Your task to perform on an android device: install app "Upside-Cash back on gas & food" Image 0: 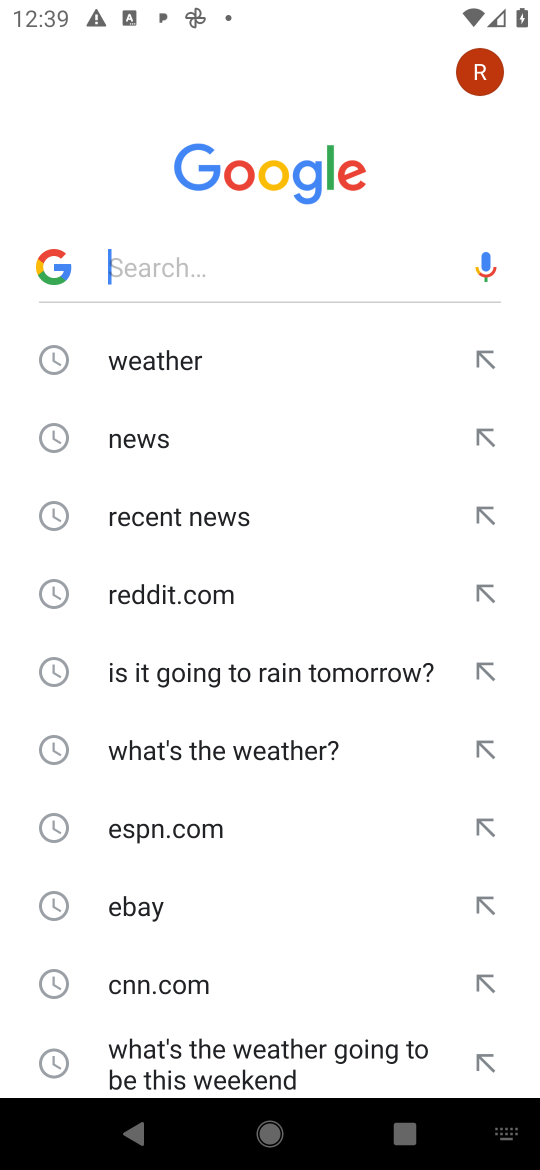
Step 0: press home button
Your task to perform on an android device: install app "Upside-Cash back on gas & food" Image 1: 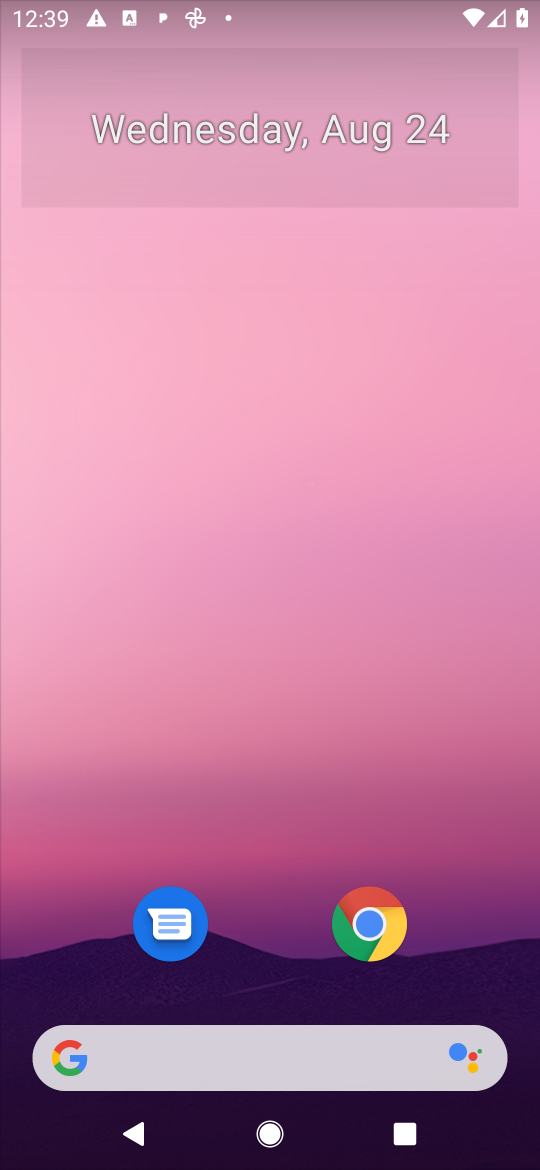
Step 1: drag from (476, 877) to (492, 197)
Your task to perform on an android device: install app "Upside-Cash back on gas & food" Image 2: 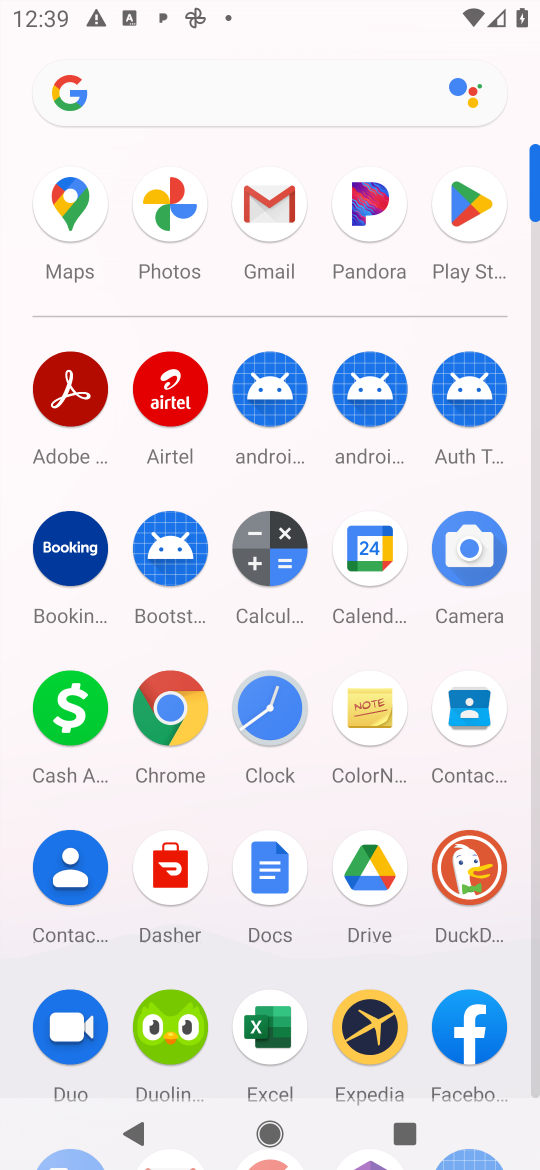
Step 2: click (474, 214)
Your task to perform on an android device: install app "Upside-Cash back on gas & food" Image 3: 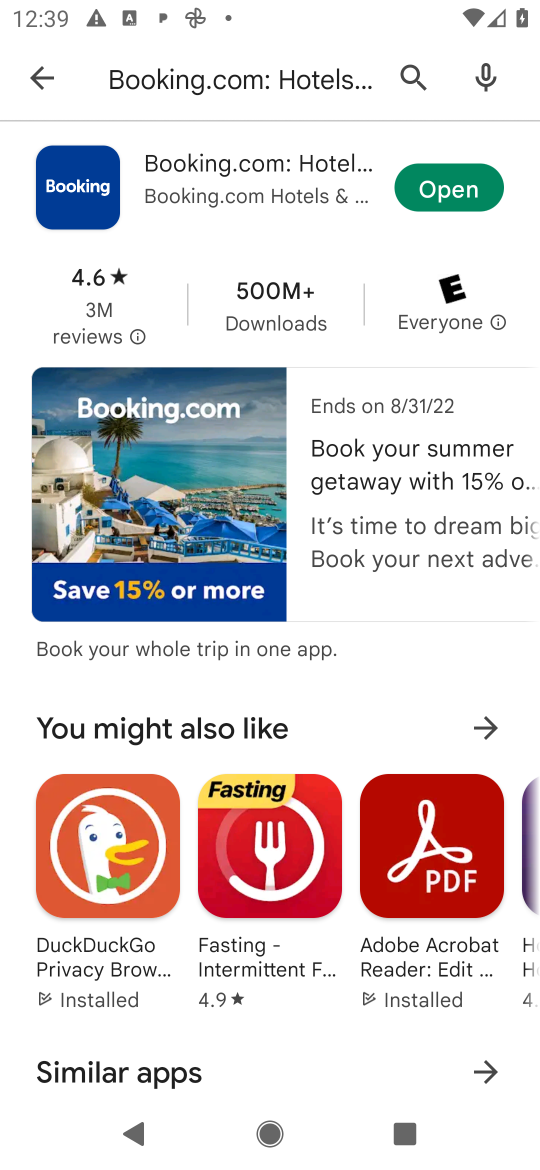
Step 3: press back button
Your task to perform on an android device: install app "Upside-Cash back on gas & food" Image 4: 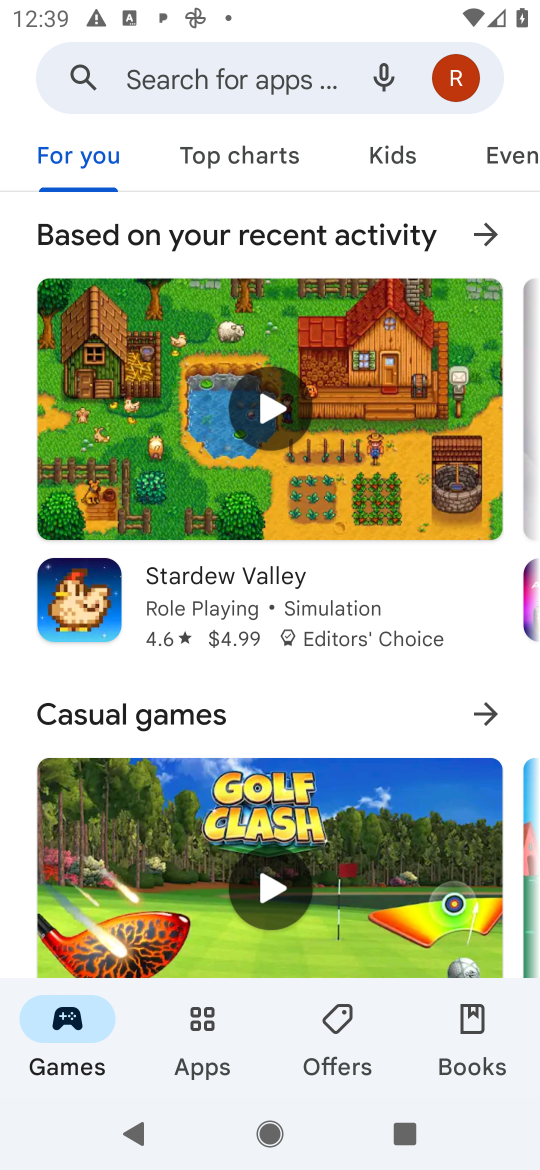
Step 4: click (260, 87)
Your task to perform on an android device: install app "Upside-Cash back on gas & food" Image 5: 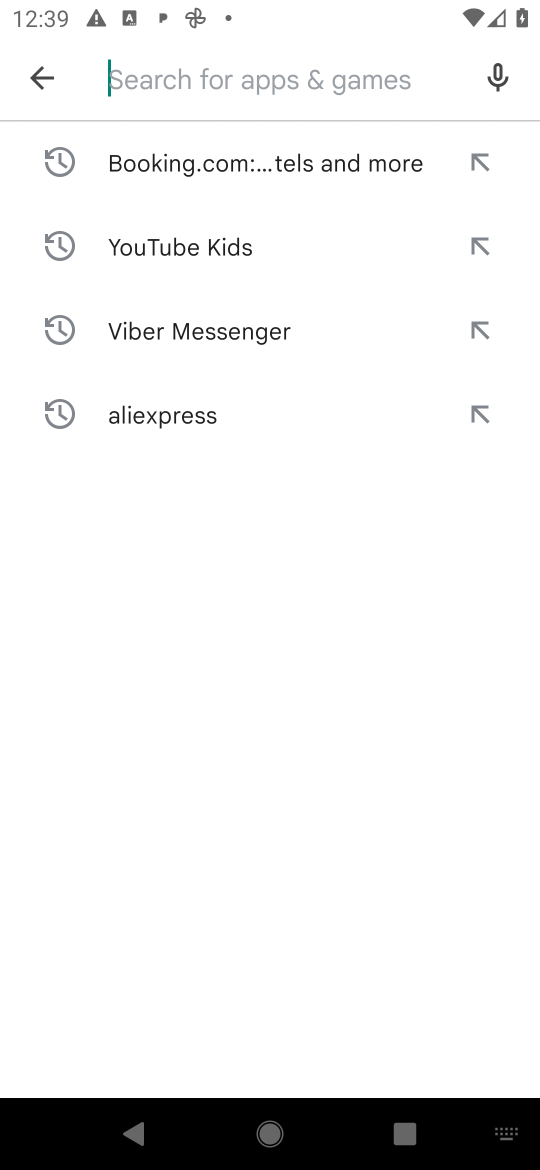
Step 5: type "Upside-Cash back on gas & food"
Your task to perform on an android device: install app "Upside-Cash back on gas & food" Image 6: 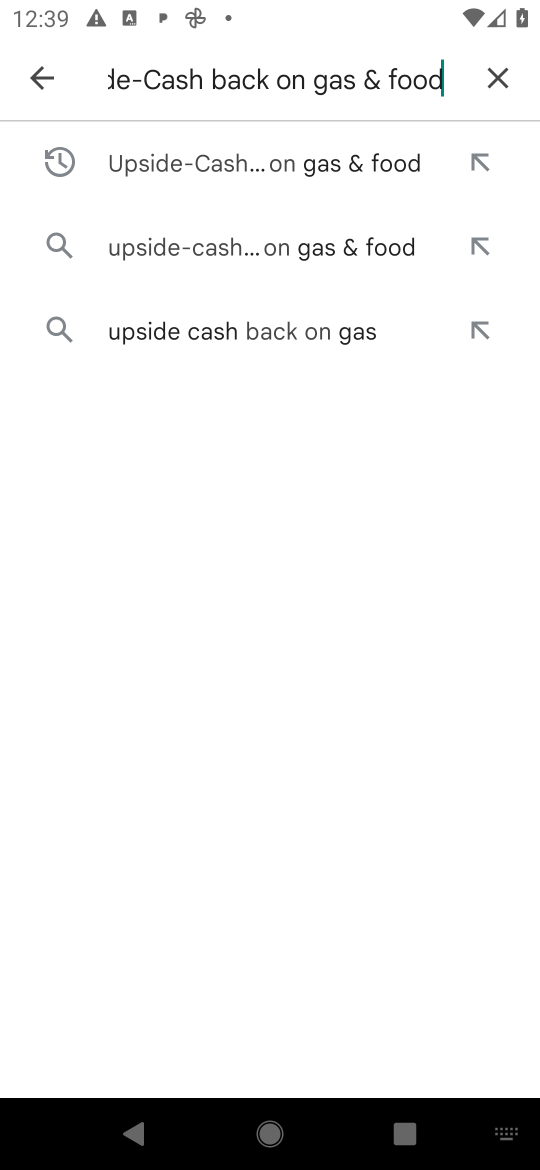
Step 6: press enter
Your task to perform on an android device: install app "Upside-Cash back on gas & food" Image 7: 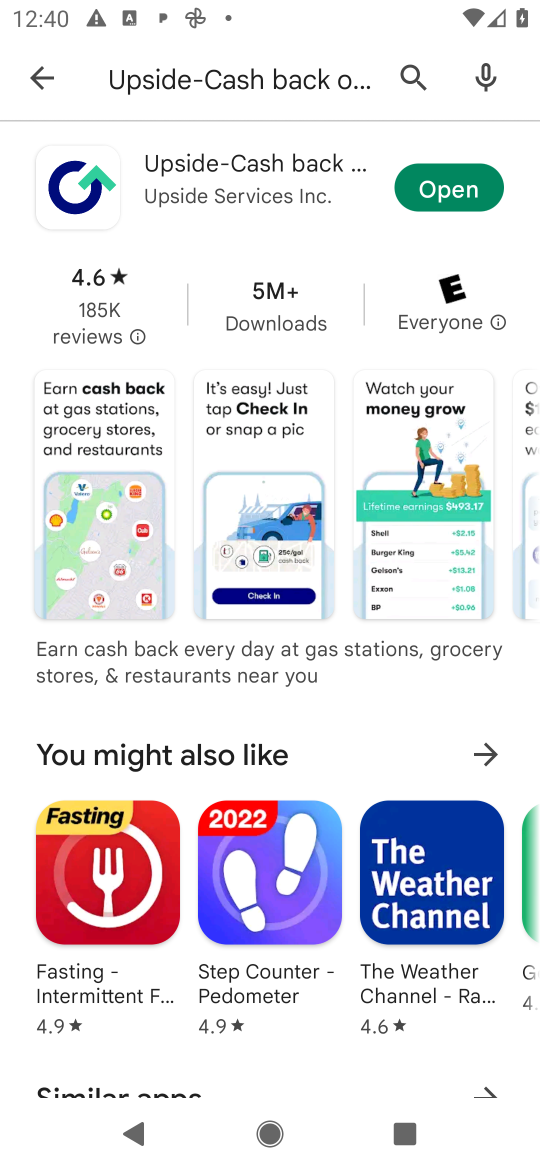
Step 7: task complete